Your task to perform on an android device: turn off airplane mode Image 0: 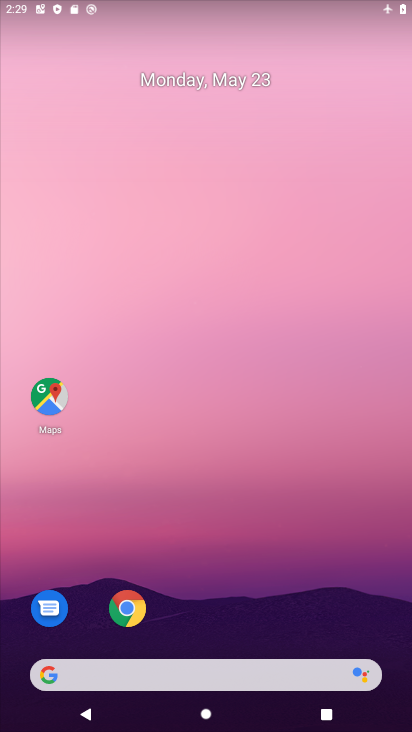
Step 0: drag from (214, 653) to (130, 9)
Your task to perform on an android device: turn off airplane mode Image 1: 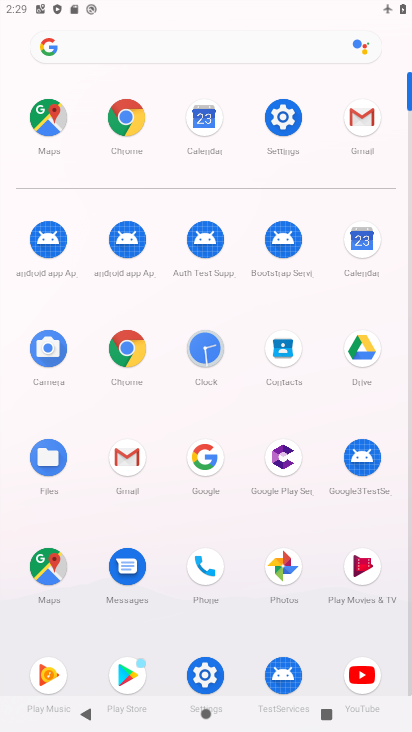
Step 1: click (289, 115)
Your task to perform on an android device: turn off airplane mode Image 2: 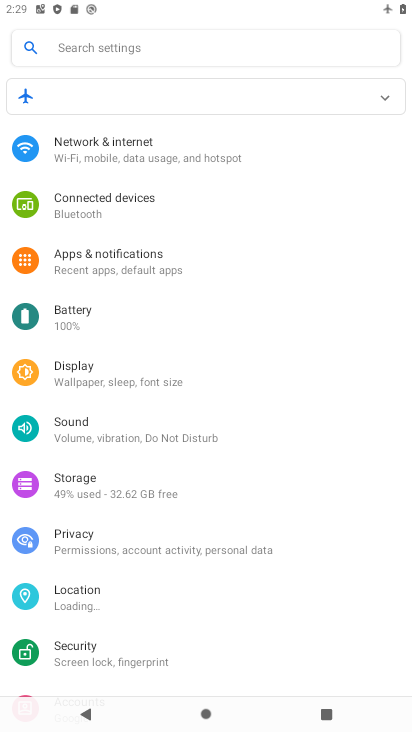
Step 2: drag from (200, 573) to (176, 647)
Your task to perform on an android device: turn off airplane mode Image 3: 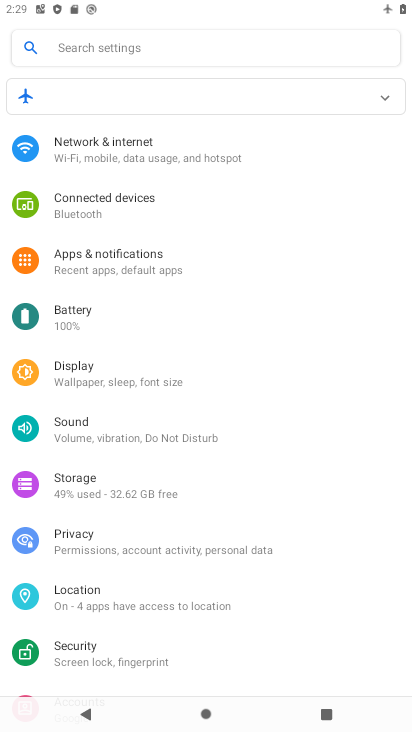
Step 3: click (81, 146)
Your task to perform on an android device: turn off airplane mode Image 4: 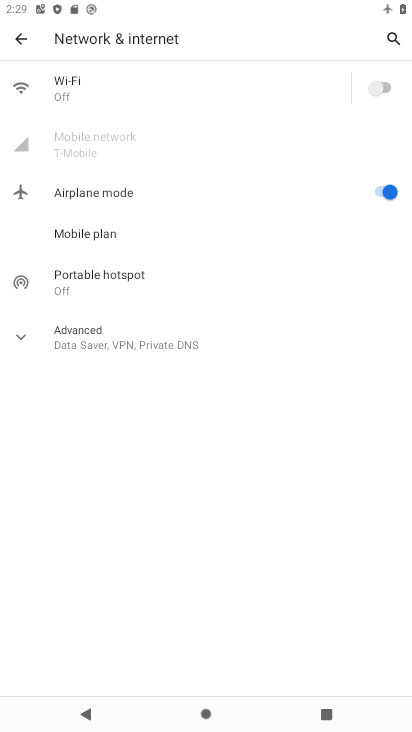
Step 4: click (384, 192)
Your task to perform on an android device: turn off airplane mode Image 5: 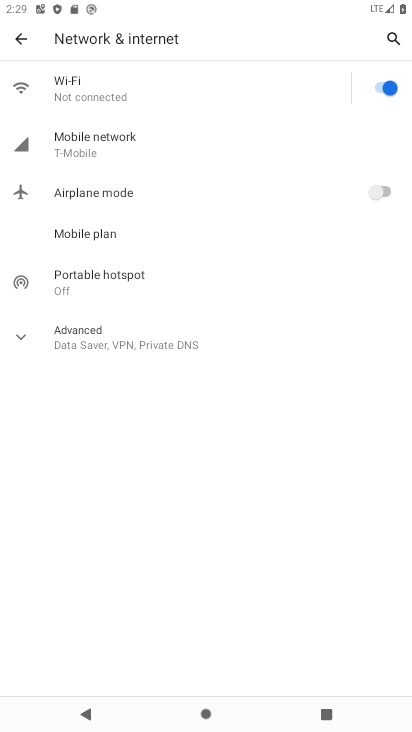
Step 5: task complete